Your task to perform on an android device: Go to Reddit.com Image 0: 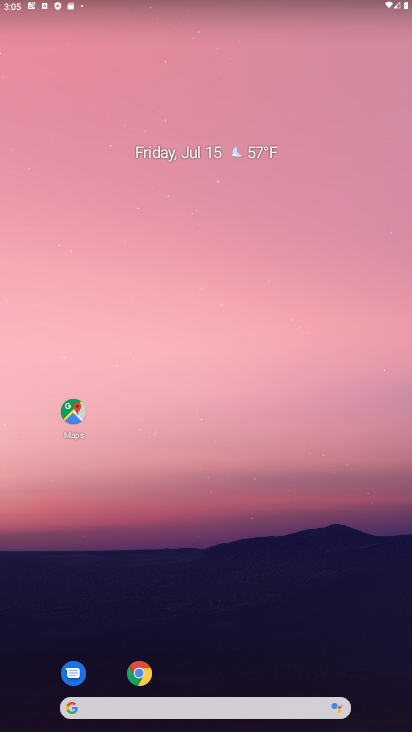
Step 0: click (140, 672)
Your task to perform on an android device: Go to Reddit.com Image 1: 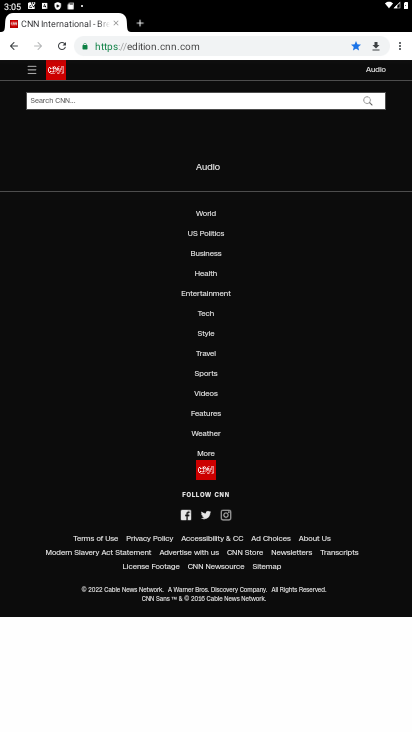
Step 1: click (225, 40)
Your task to perform on an android device: Go to Reddit.com Image 2: 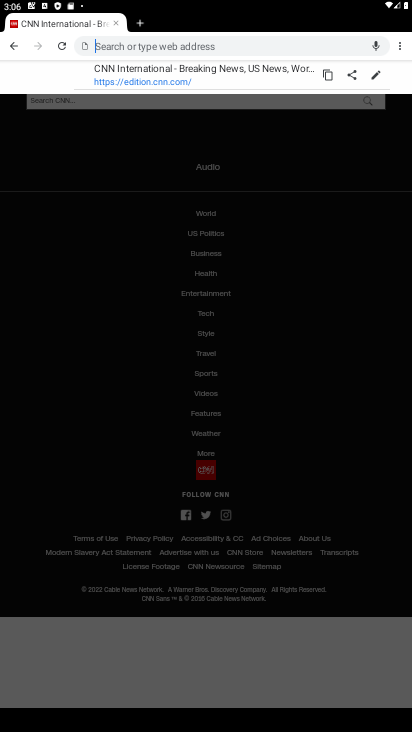
Step 2: type "Reddit.com"
Your task to perform on an android device: Go to Reddit.com Image 3: 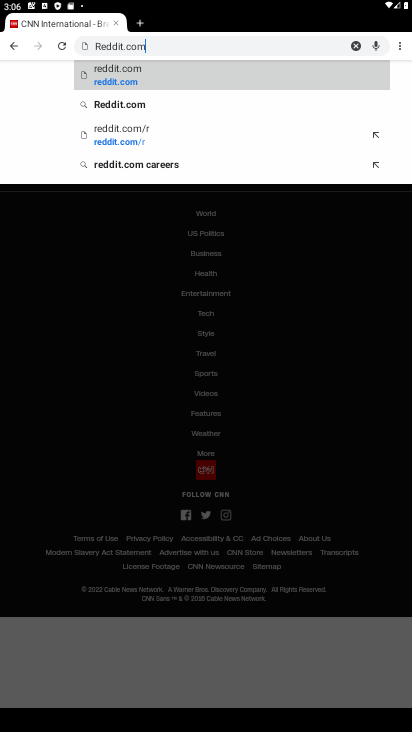
Step 3: click (116, 70)
Your task to perform on an android device: Go to Reddit.com Image 4: 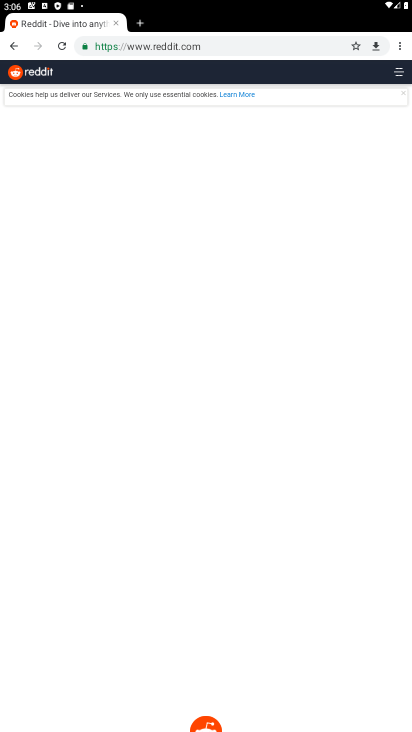
Step 4: task complete